Your task to perform on an android device: toggle notifications settings in the gmail app Image 0: 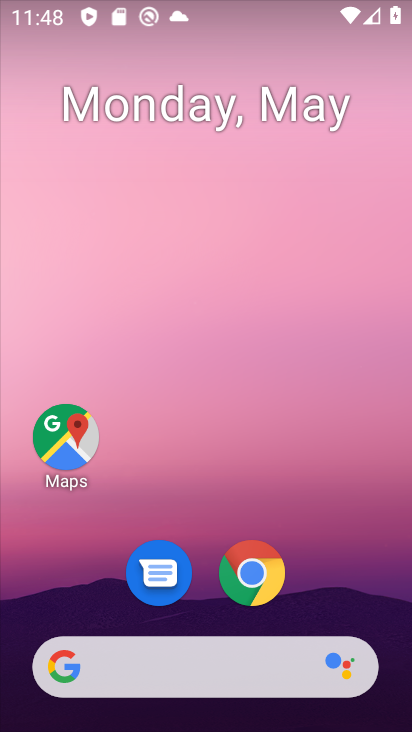
Step 0: drag from (362, 481) to (216, 4)
Your task to perform on an android device: toggle notifications settings in the gmail app Image 1: 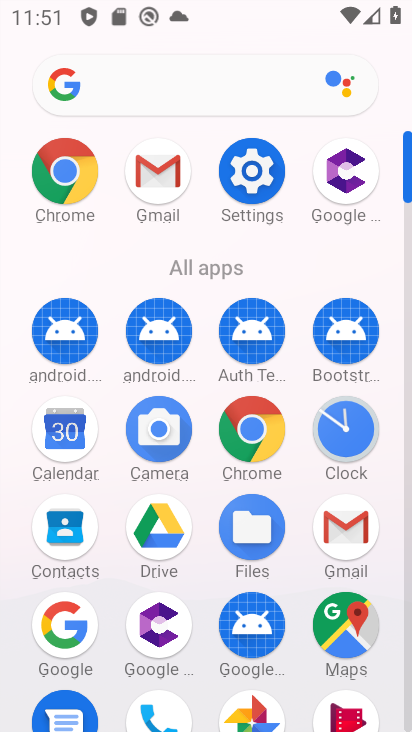
Step 1: click (345, 519)
Your task to perform on an android device: toggle notifications settings in the gmail app Image 2: 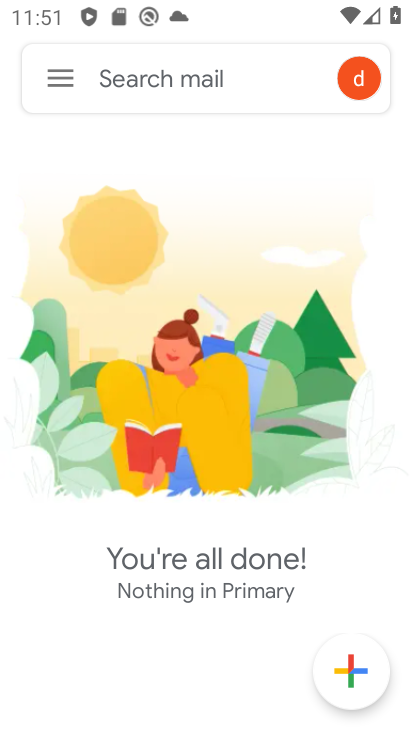
Step 2: click (68, 81)
Your task to perform on an android device: toggle notifications settings in the gmail app Image 3: 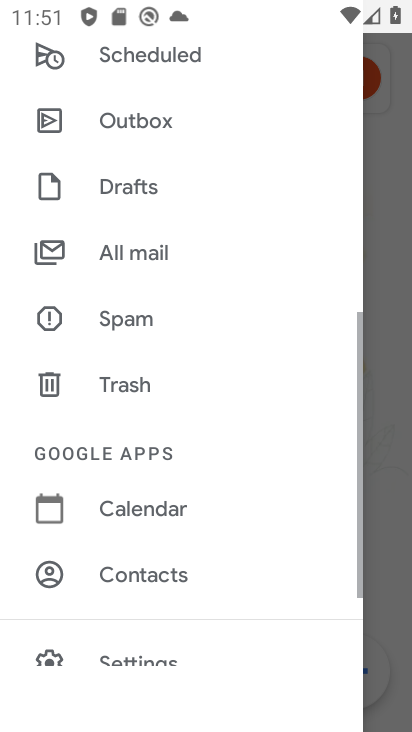
Step 3: drag from (151, 515) to (185, 148)
Your task to perform on an android device: toggle notifications settings in the gmail app Image 4: 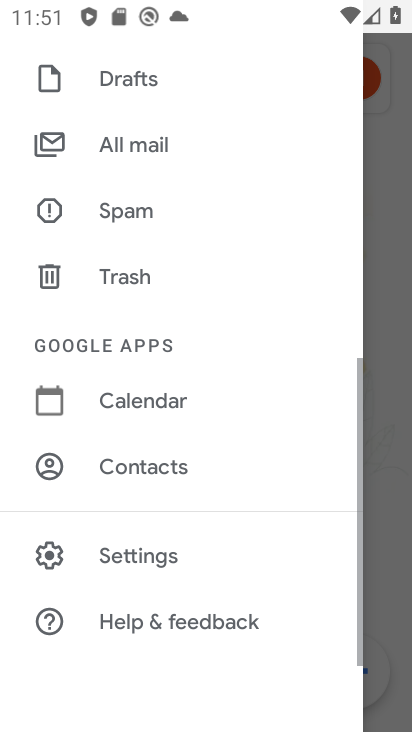
Step 4: click (161, 571)
Your task to perform on an android device: toggle notifications settings in the gmail app Image 5: 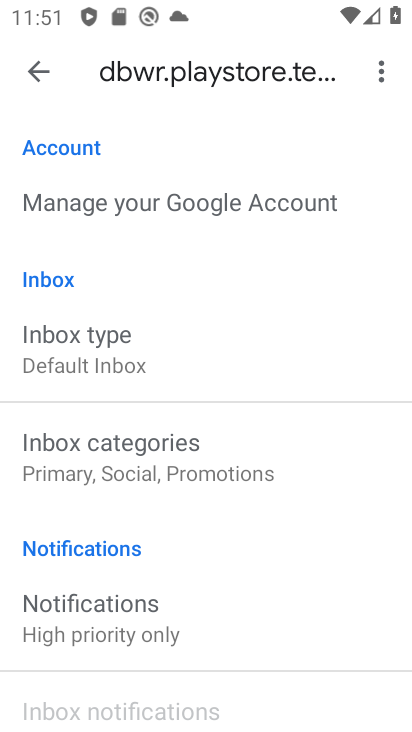
Step 5: click (89, 630)
Your task to perform on an android device: toggle notifications settings in the gmail app Image 6: 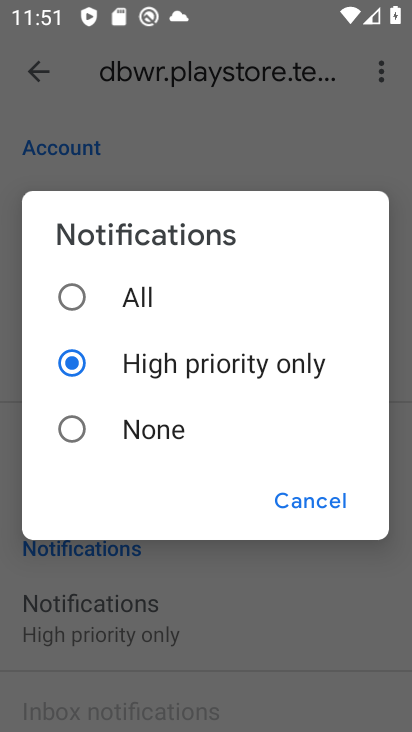
Step 6: click (59, 435)
Your task to perform on an android device: toggle notifications settings in the gmail app Image 7: 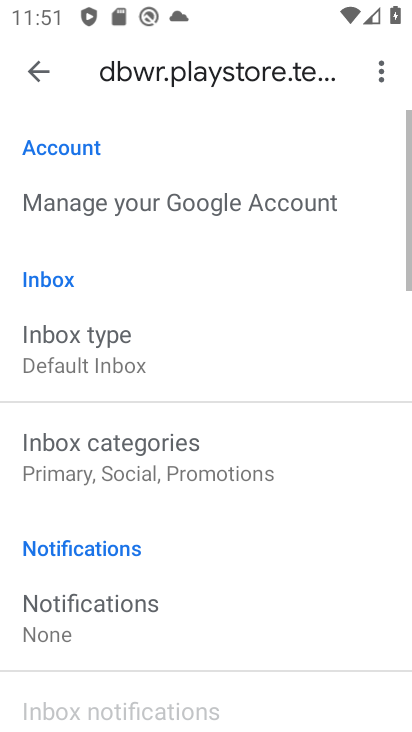
Step 7: task complete